Your task to perform on an android device: Open privacy settings Image 0: 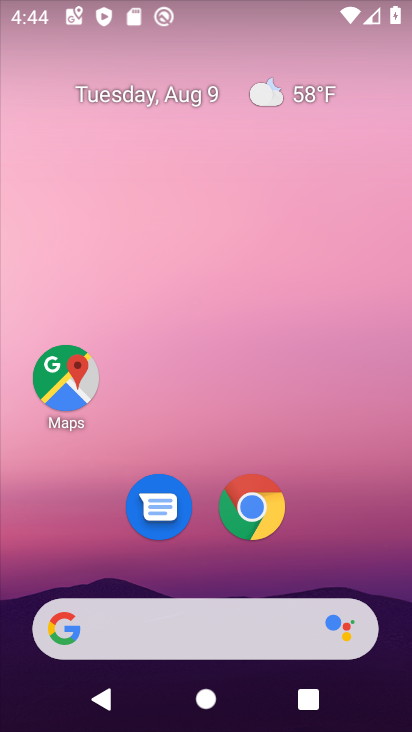
Step 0: drag from (201, 562) to (201, 170)
Your task to perform on an android device: Open privacy settings Image 1: 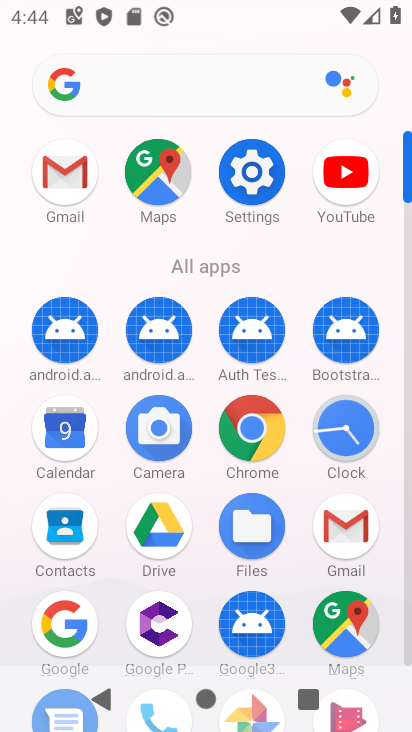
Step 1: click (258, 167)
Your task to perform on an android device: Open privacy settings Image 2: 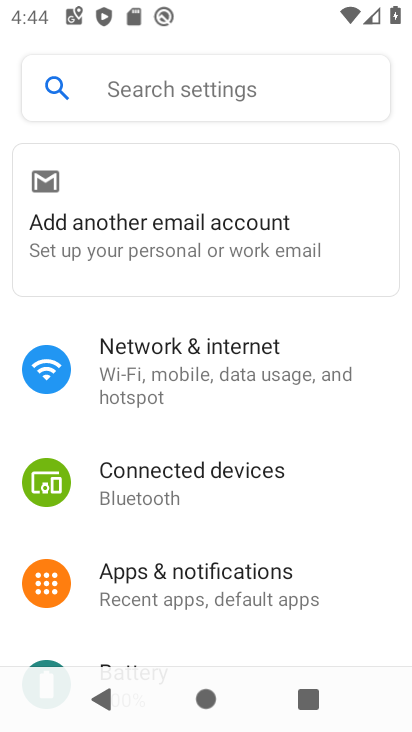
Step 2: drag from (217, 599) to (145, 168)
Your task to perform on an android device: Open privacy settings Image 3: 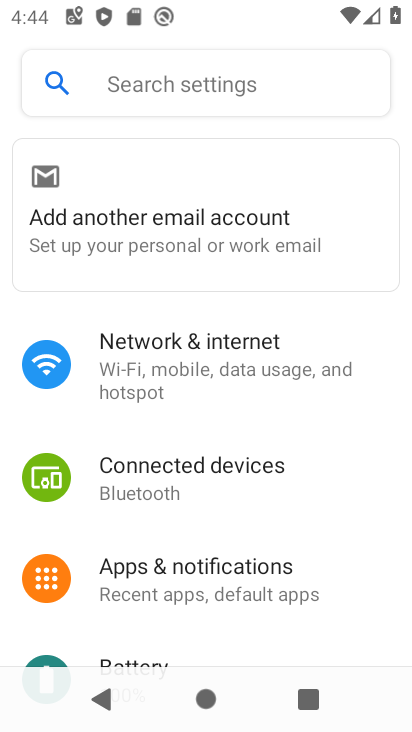
Step 3: drag from (181, 471) to (169, 170)
Your task to perform on an android device: Open privacy settings Image 4: 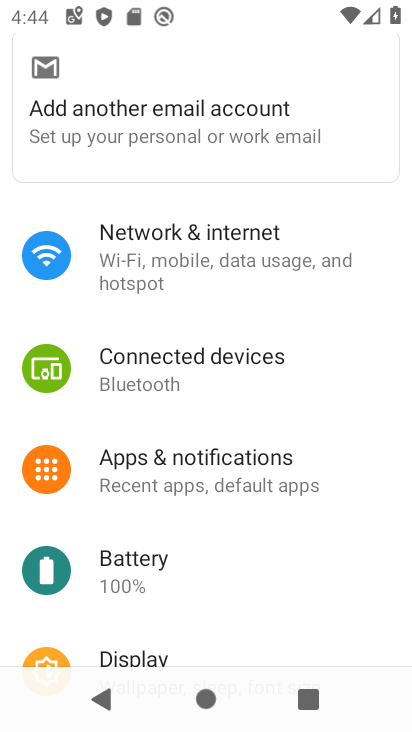
Step 4: drag from (189, 536) to (184, 141)
Your task to perform on an android device: Open privacy settings Image 5: 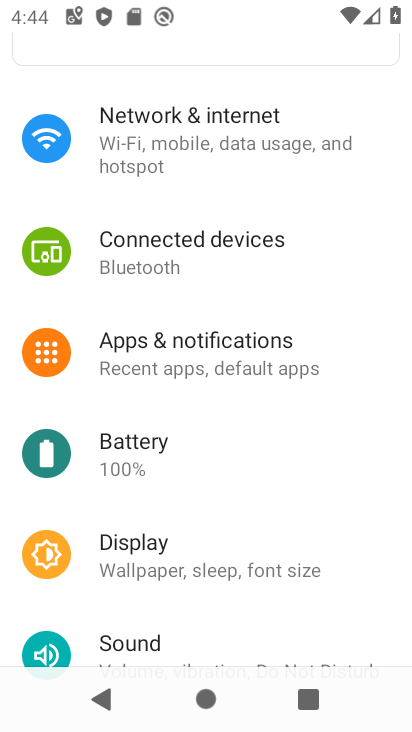
Step 5: drag from (181, 623) to (174, 157)
Your task to perform on an android device: Open privacy settings Image 6: 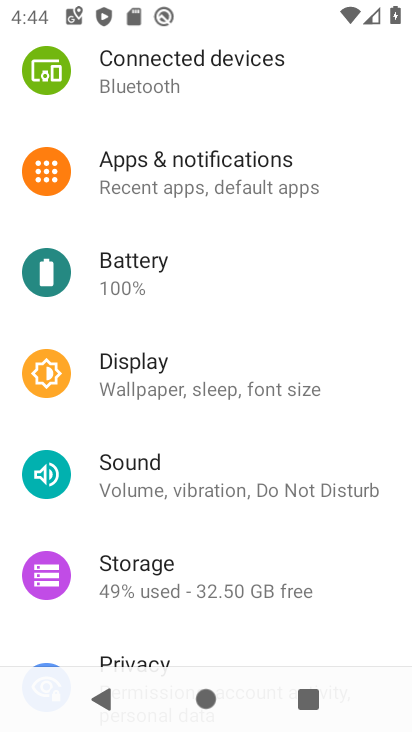
Step 6: drag from (184, 561) to (122, 129)
Your task to perform on an android device: Open privacy settings Image 7: 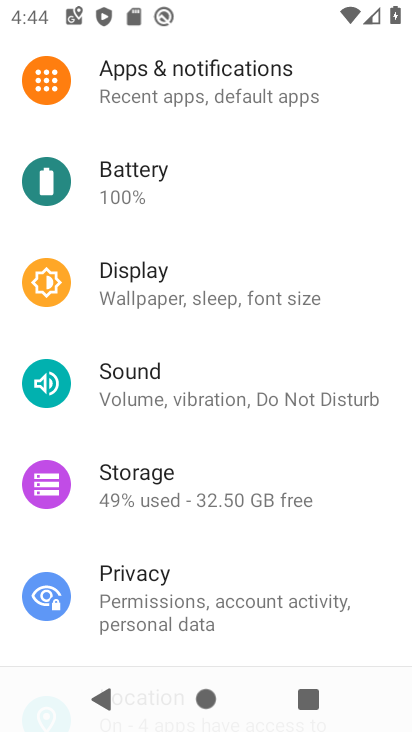
Step 7: click (137, 596)
Your task to perform on an android device: Open privacy settings Image 8: 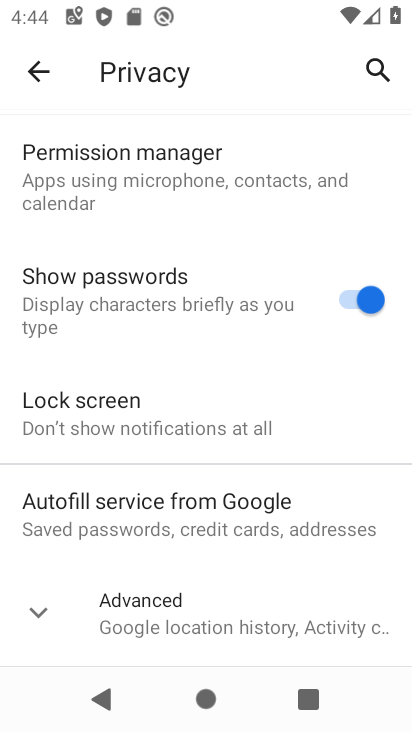
Step 8: task complete